Your task to perform on an android device: turn off notifications settings in the gmail app Image 0: 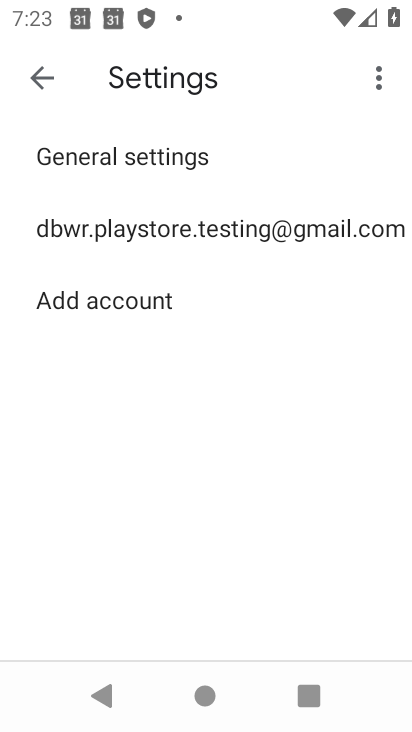
Step 0: press back button
Your task to perform on an android device: turn off notifications settings in the gmail app Image 1: 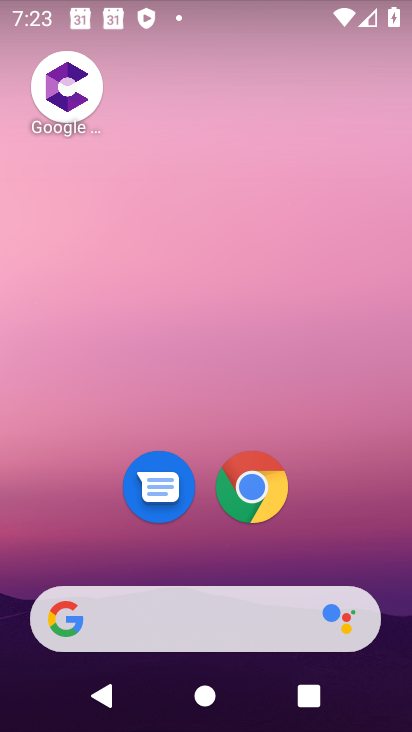
Step 1: drag from (361, 537) to (195, 135)
Your task to perform on an android device: turn off notifications settings in the gmail app Image 2: 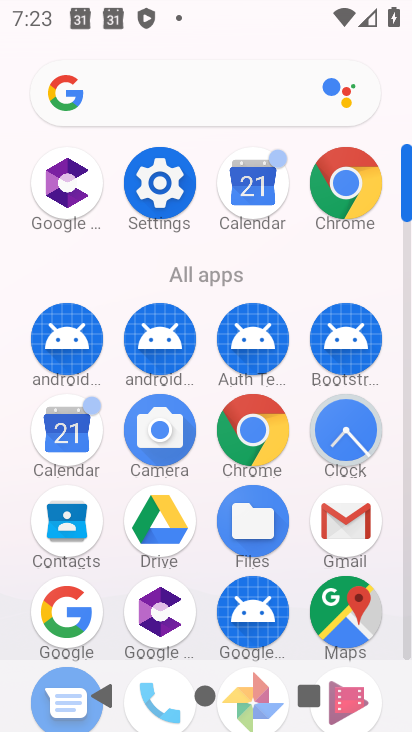
Step 2: click (362, 533)
Your task to perform on an android device: turn off notifications settings in the gmail app Image 3: 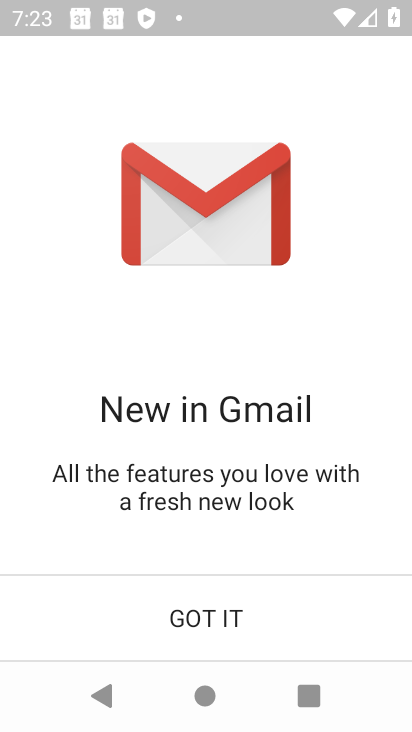
Step 3: click (152, 633)
Your task to perform on an android device: turn off notifications settings in the gmail app Image 4: 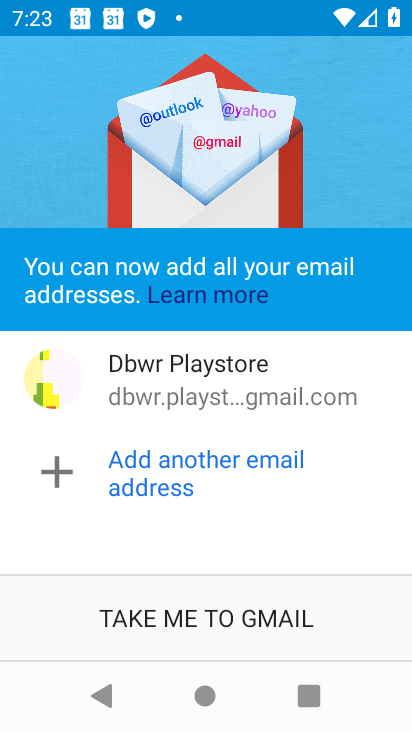
Step 4: click (152, 633)
Your task to perform on an android device: turn off notifications settings in the gmail app Image 5: 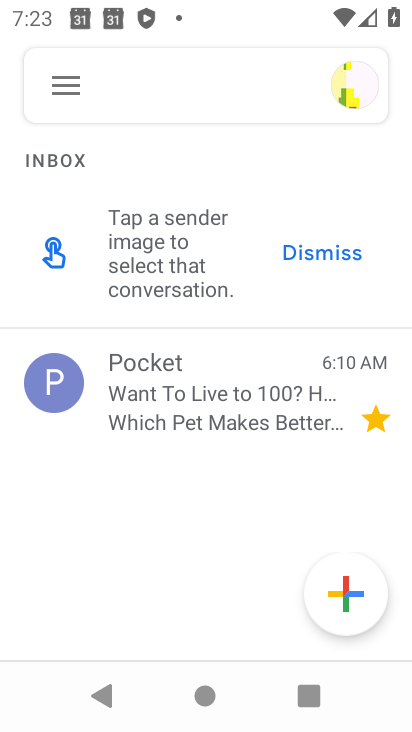
Step 5: click (52, 86)
Your task to perform on an android device: turn off notifications settings in the gmail app Image 6: 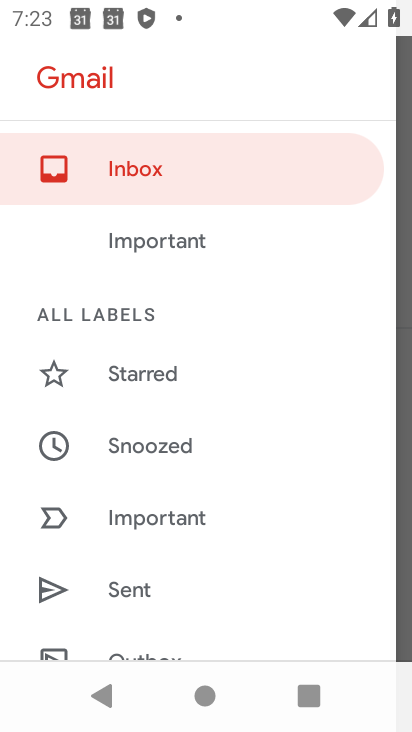
Step 6: drag from (163, 627) to (144, 91)
Your task to perform on an android device: turn off notifications settings in the gmail app Image 7: 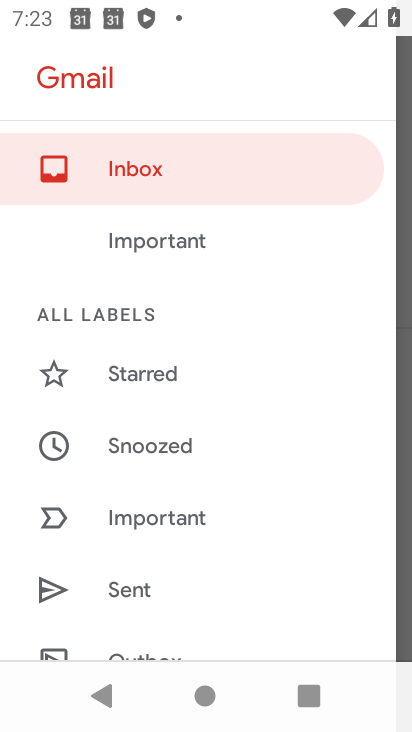
Step 7: drag from (247, 561) to (267, 156)
Your task to perform on an android device: turn off notifications settings in the gmail app Image 8: 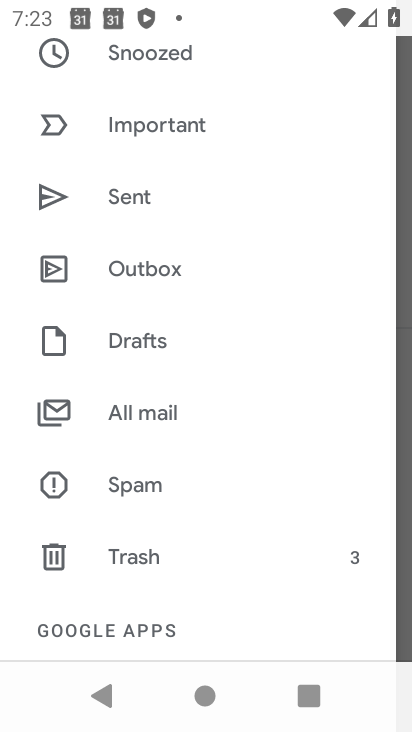
Step 8: drag from (263, 529) to (271, 80)
Your task to perform on an android device: turn off notifications settings in the gmail app Image 9: 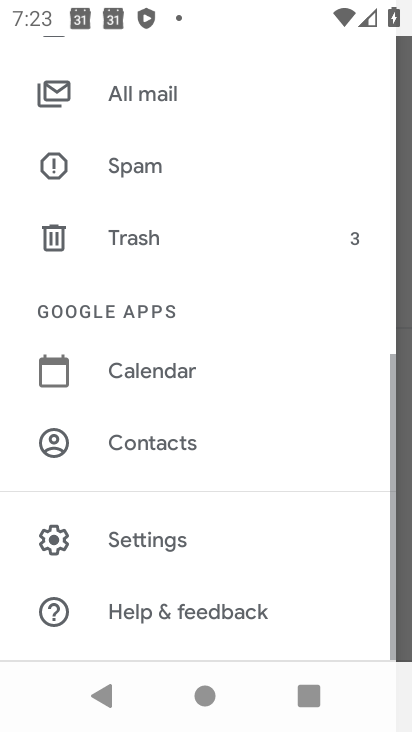
Step 9: click (189, 524)
Your task to perform on an android device: turn off notifications settings in the gmail app Image 10: 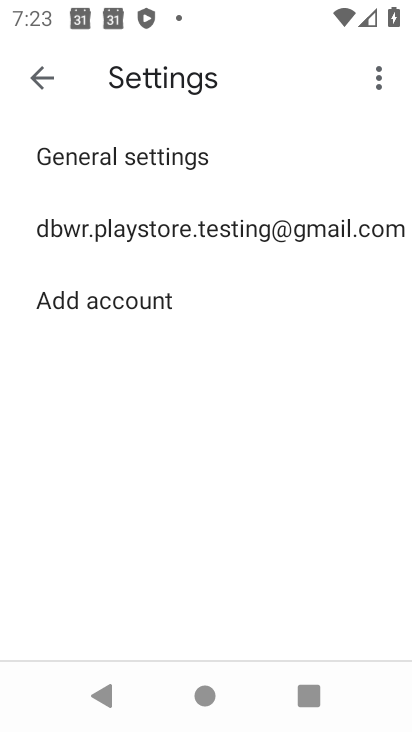
Step 10: click (296, 243)
Your task to perform on an android device: turn off notifications settings in the gmail app Image 11: 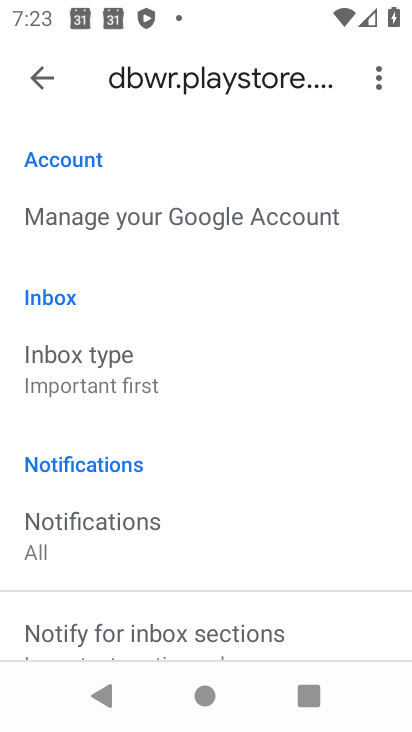
Step 11: click (175, 566)
Your task to perform on an android device: turn off notifications settings in the gmail app Image 12: 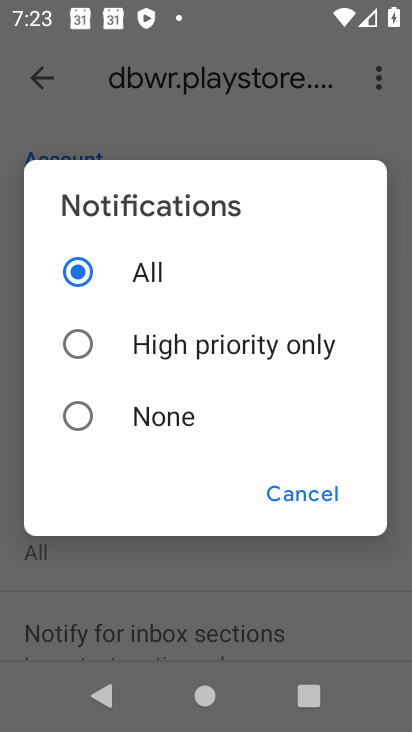
Step 12: click (181, 418)
Your task to perform on an android device: turn off notifications settings in the gmail app Image 13: 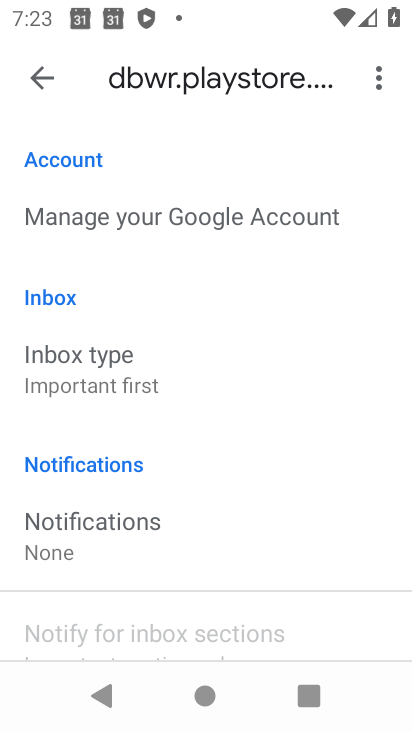
Step 13: task complete